Your task to perform on an android device: Go to Google Image 0: 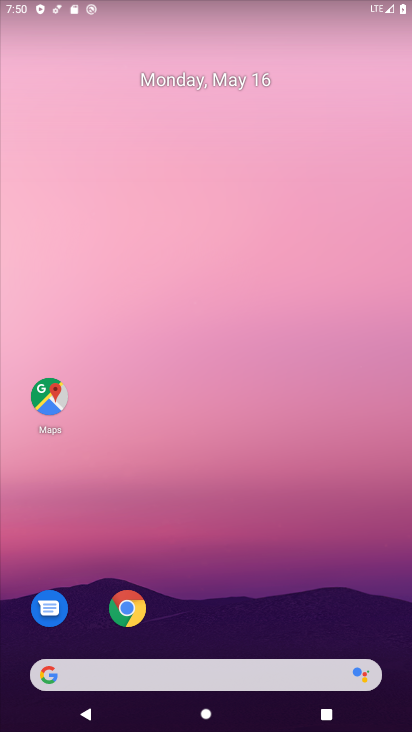
Step 0: drag from (241, 588) to (227, 117)
Your task to perform on an android device: Go to Google Image 1: 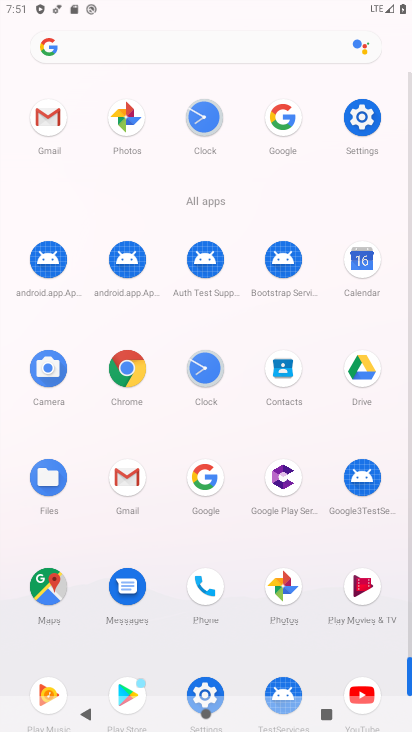
Step 1: click (280, 117)
Your task to perform on an android device: Go to Google Image 2: 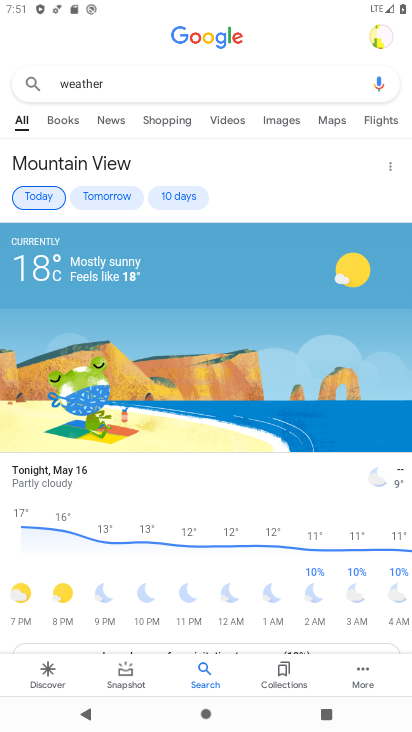
Step 2: task complete